Your task to perform on an android device: empty trash in the gmail app Image 0: 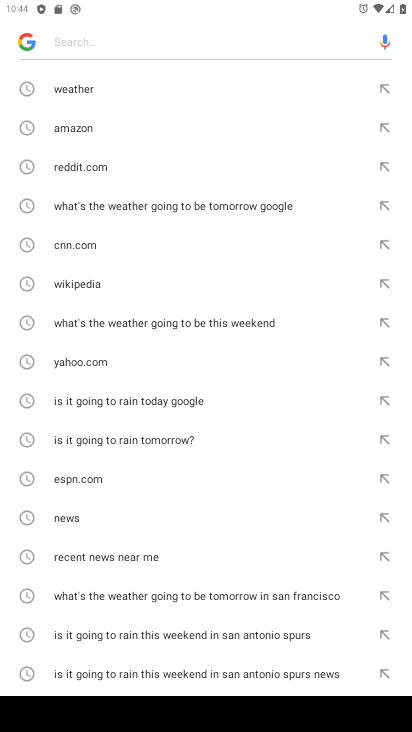
Step 0: press home button
Your task to perform on an android device: empty trash in the gmail app Image 1: 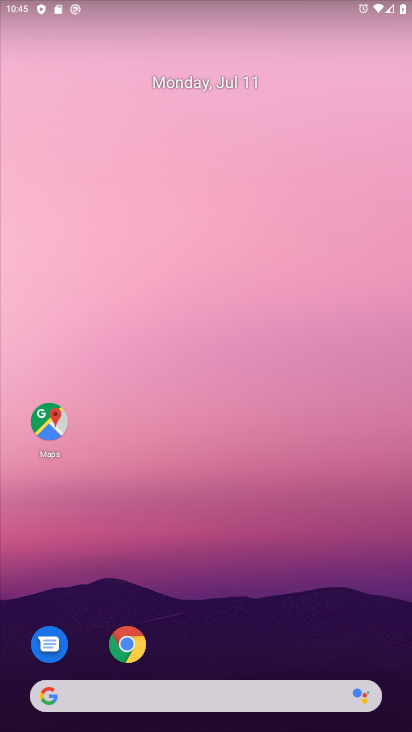
Step 1: drag from (285, 650) to (258, 140)
Your task to perform on an android device: empty trash in the gmail app Image 2: 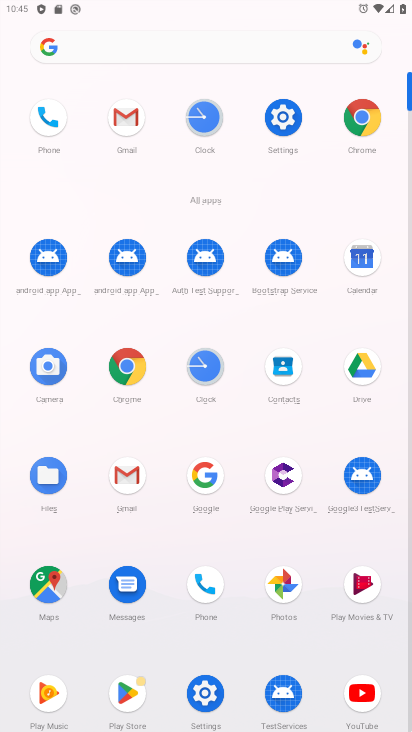
Step 2: click (125, 115)
Your task to perform on an android device: empty trash in the gmail app Image 3: 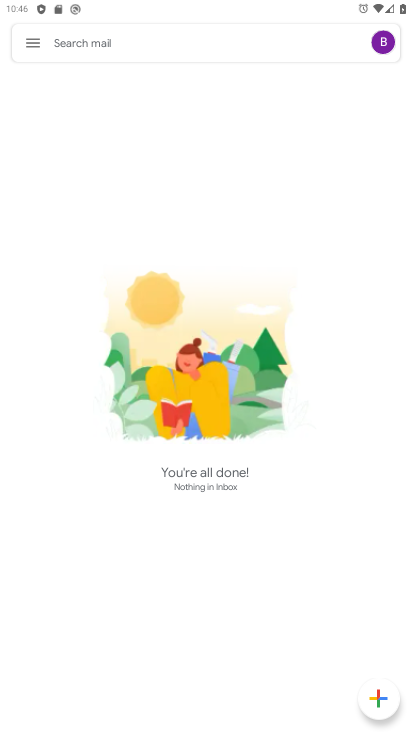
Step 3: press home button
Your task to perform on an android device: empty trash in the gmail app Image 4: 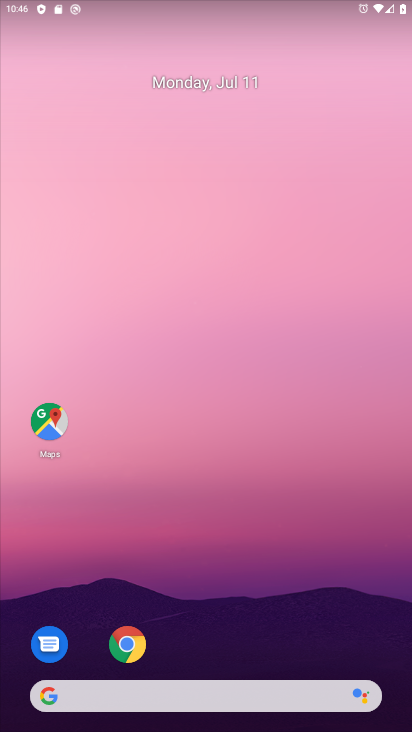
Step 4: drag from (315, 605) to (292, 23)
Your task to perform on an android device: empty trash in the gmail app Image 5: 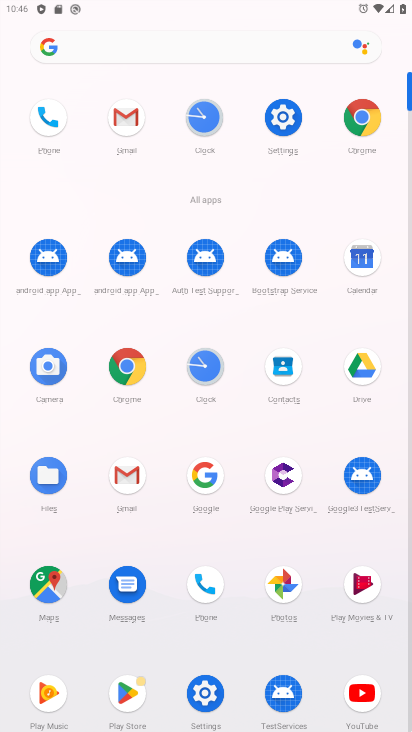
Step 5: click (114, 131)
Your task to perform on an android device: empty trash in the gmail app Image 6: 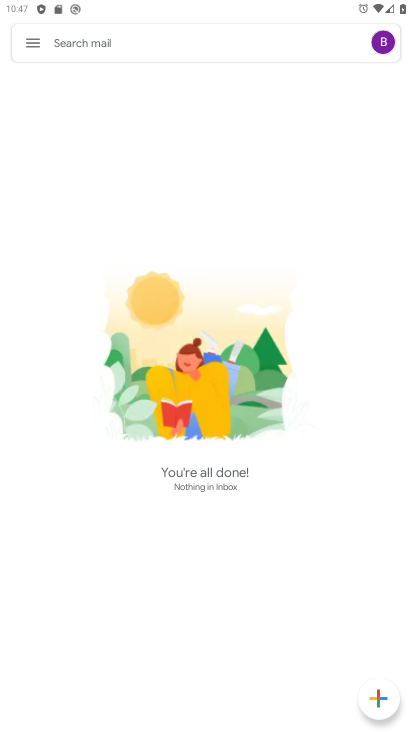
Step 6: click (25, 41)
Your task to perform on an android device: empty trash in the gmail app Image 7: 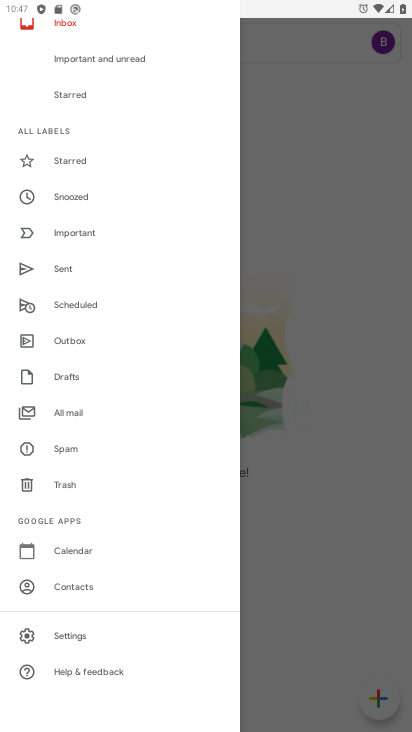
Step 7: click (61, 643)
Your task to perform on an android device: empty trash in the gmail app Image 8: 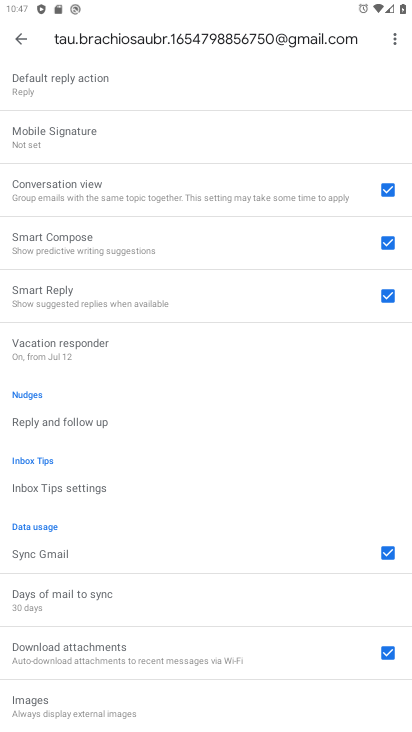
Step 8: click (20, 27)
Your task to perform on an android device: empty trash in the gmail app Image 9: 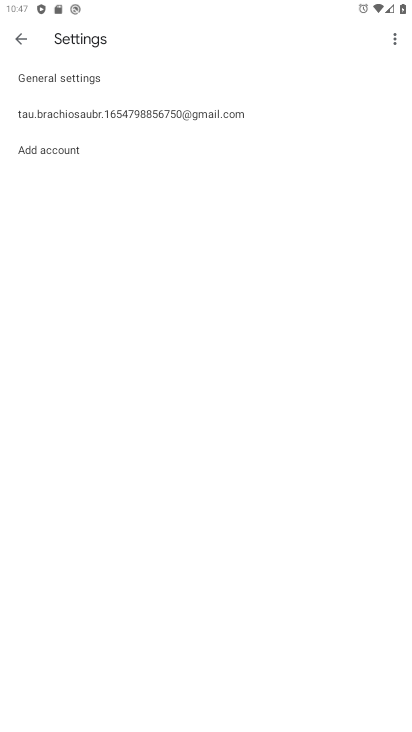
Step 9: click (20, 28)
Your task to perform on an android device: empty trash in the gmail app Image 10: 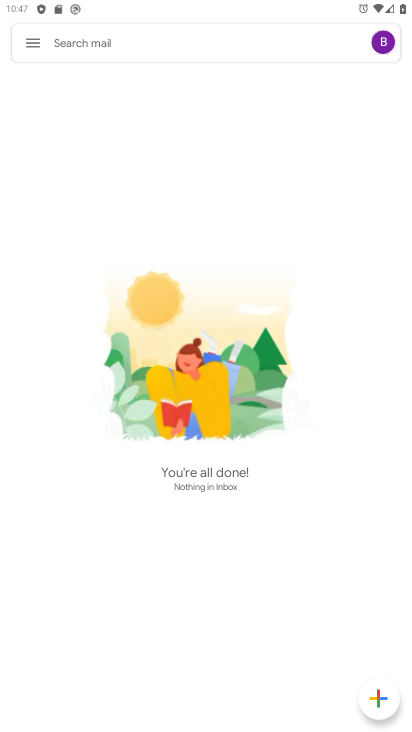
Step 10: click (20, 40)
Your task to perform on an android device: empty trash in the gmail app Image 11: 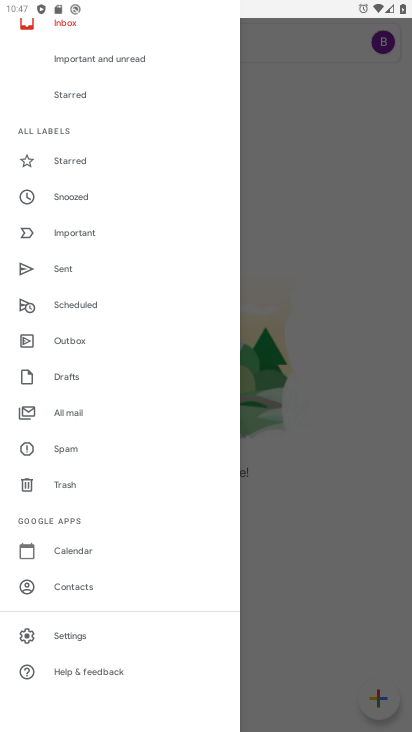
Step 11: drag from (86, 132) to (83, 524)
Your task to perform on an android device: empty trash in the gmail app Image 12: 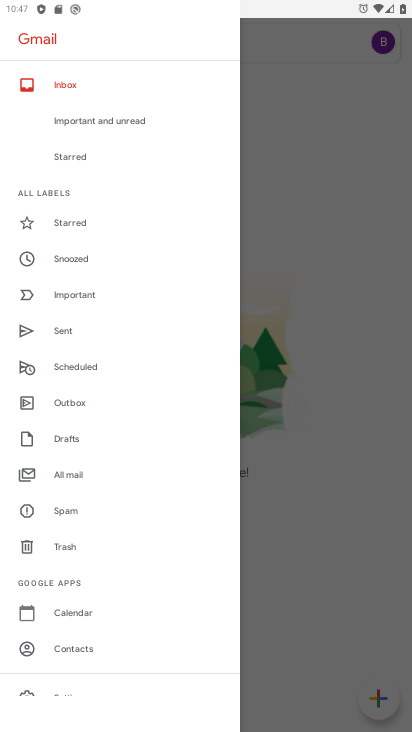
Step 12: click (75, 539)
Your task to perform on an android device: empty trash in the gmail app Image 13: 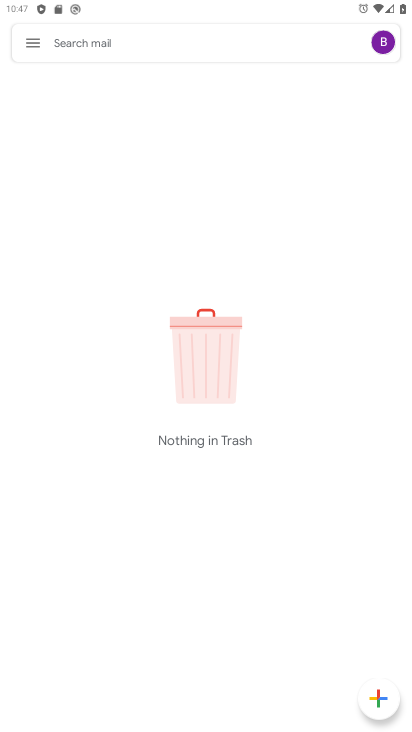
Step 13: task complete